Your task to perform on an android device: change notification settings in the gmail app Image 0: 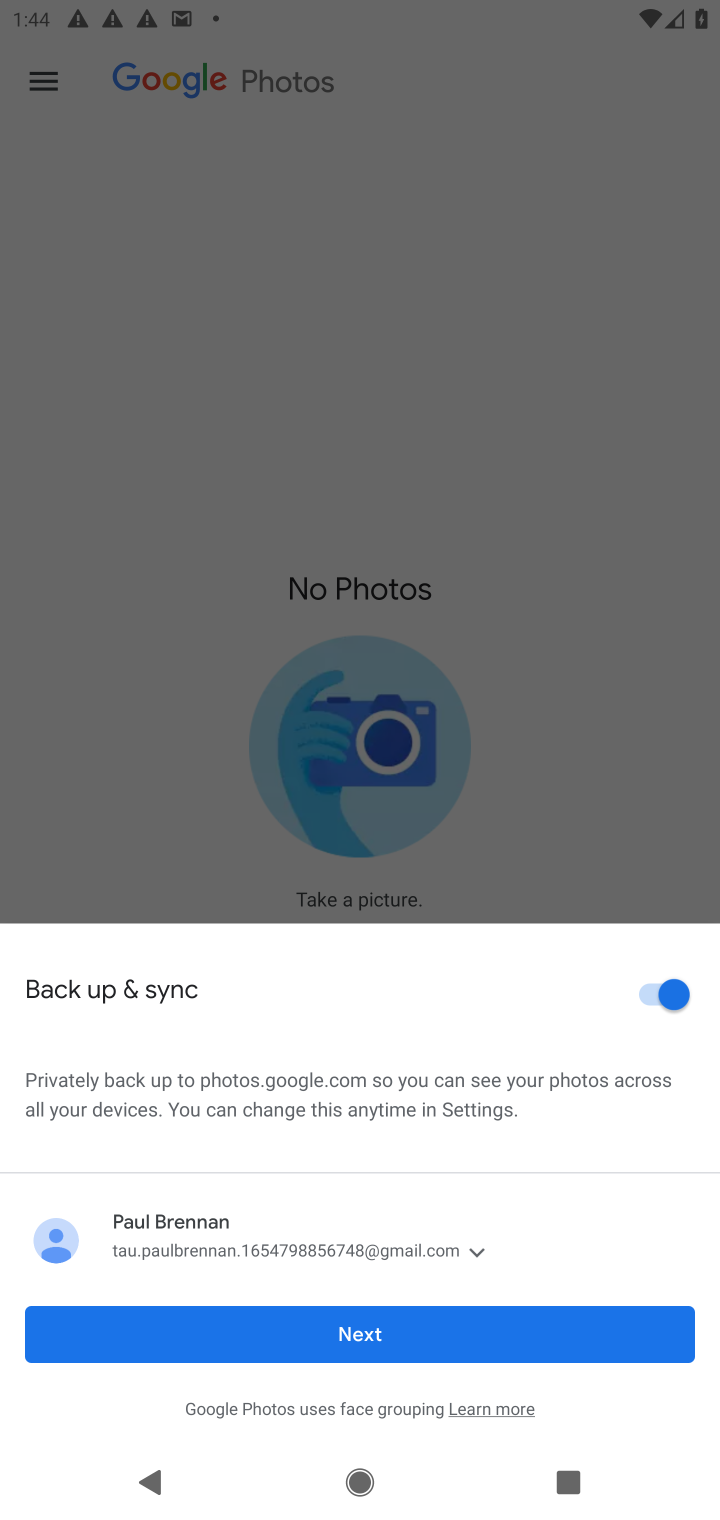
Step 0: press home button
Your task to perform on an android device: change notification settings in the gmail app Image 1: 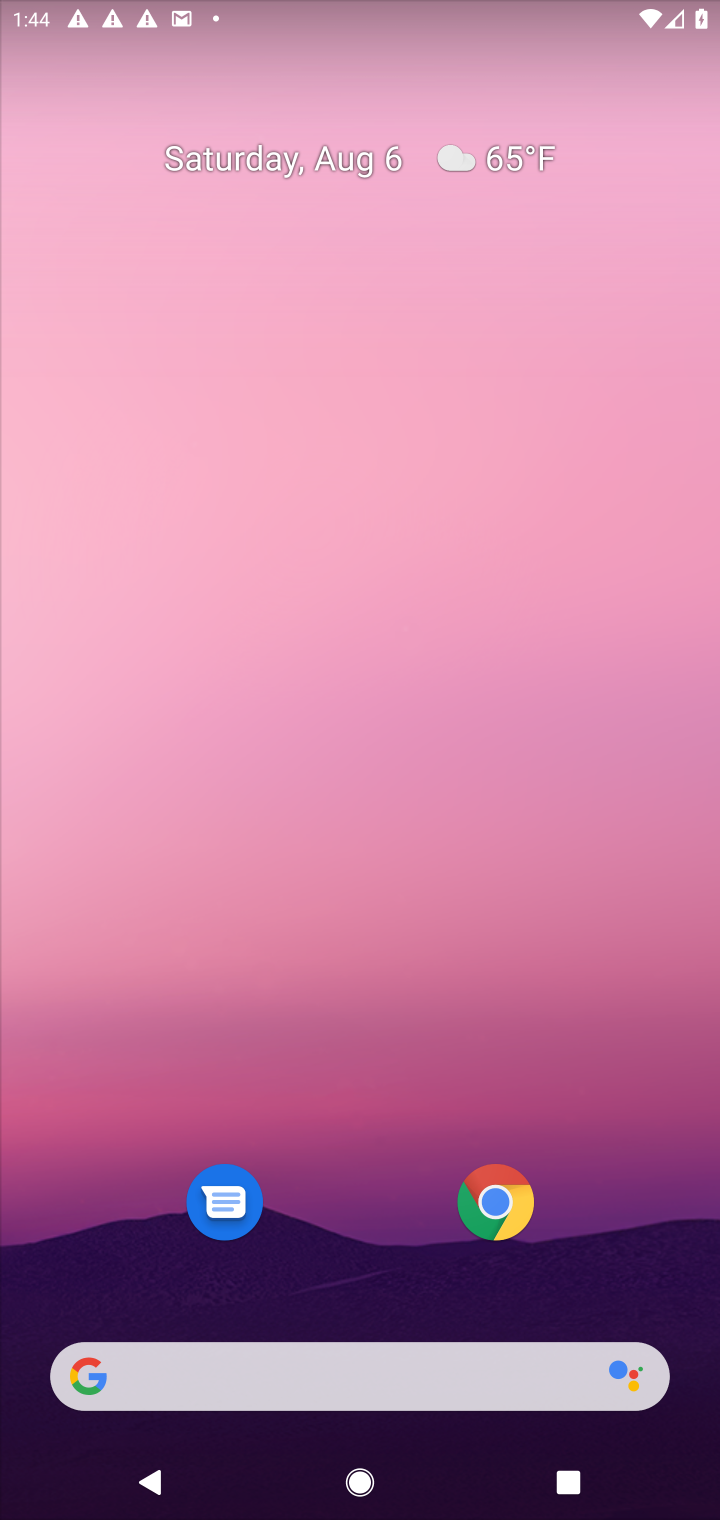
Step 1: drag from (244, 1310) to (329, 533)
Your task to perform on an android device: change notification settings in the gmail app Image 2: 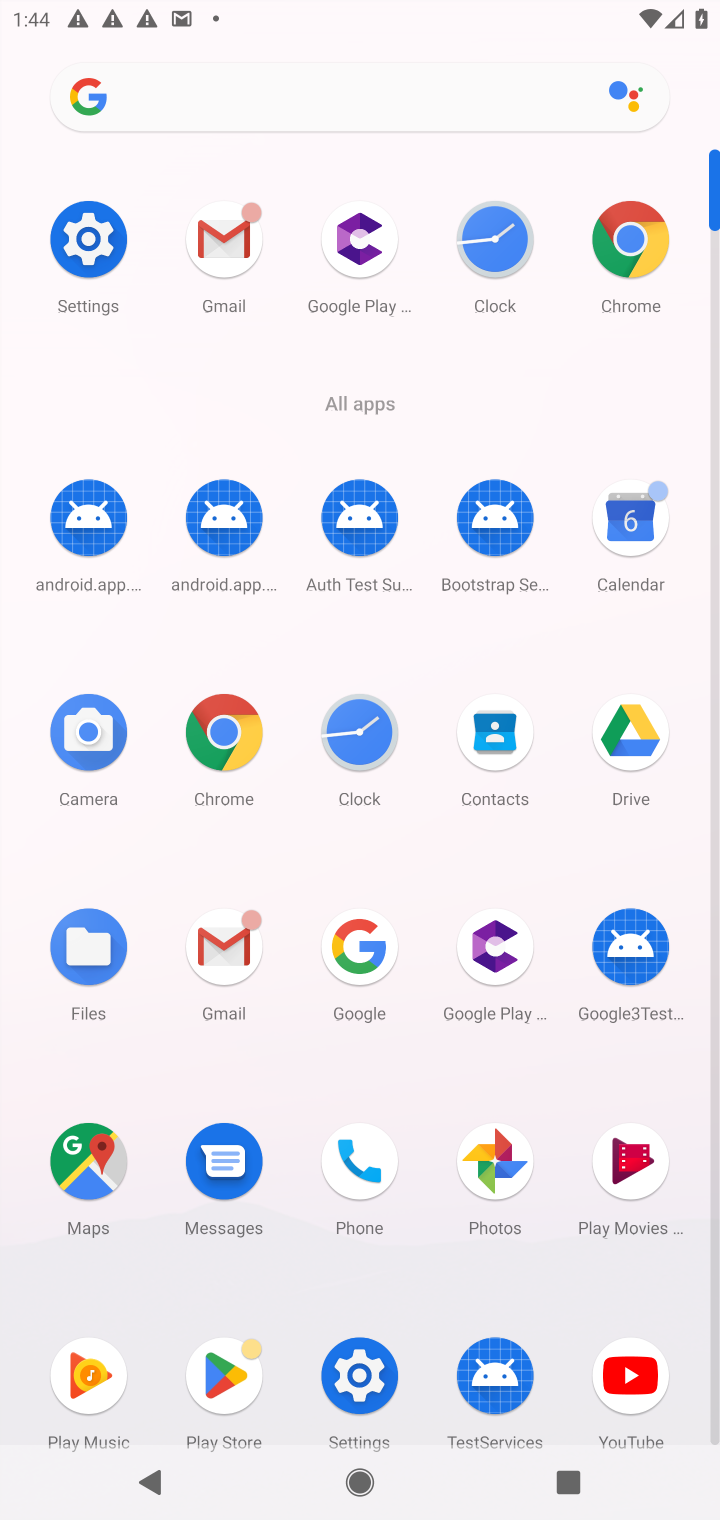
Step 2: click (215, 956)
Your task to perform on an android device: change notification settings in the gmail app Image 3: 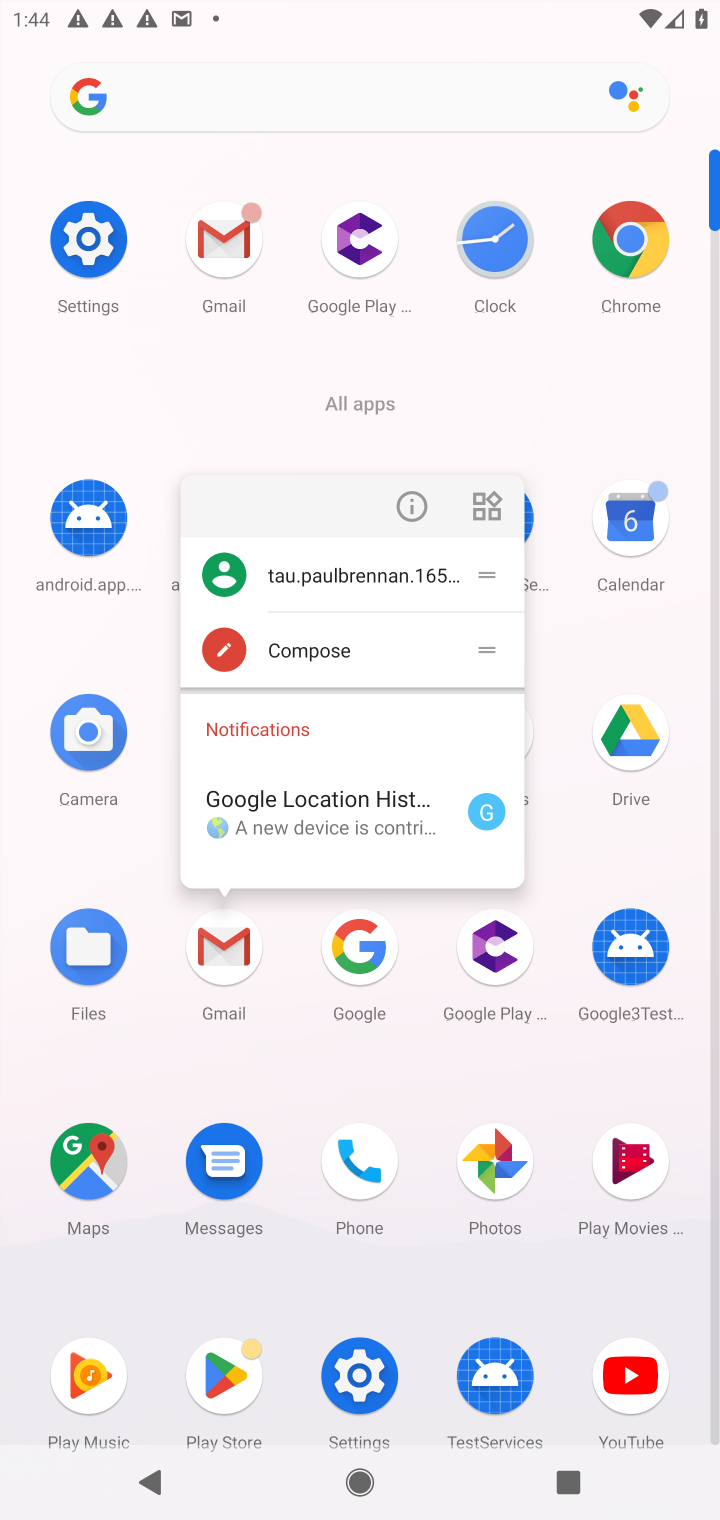
Step 3: click (215, 956)
Your task to perform on an android device: change notification settings in the gmail app Image 4: 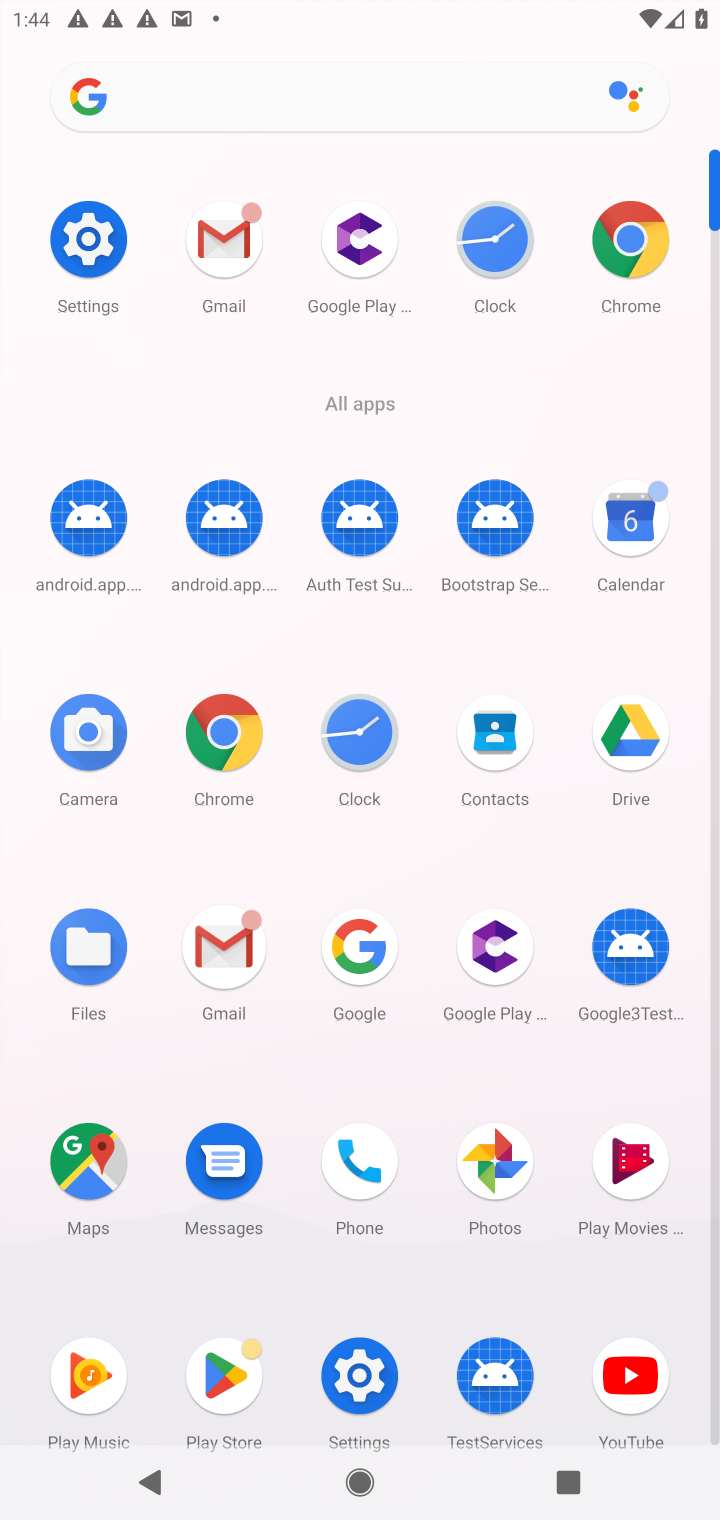
Step 4: click (215, 956)
Your task to perform on an android device: change notification settings in the gmail app Image 5: 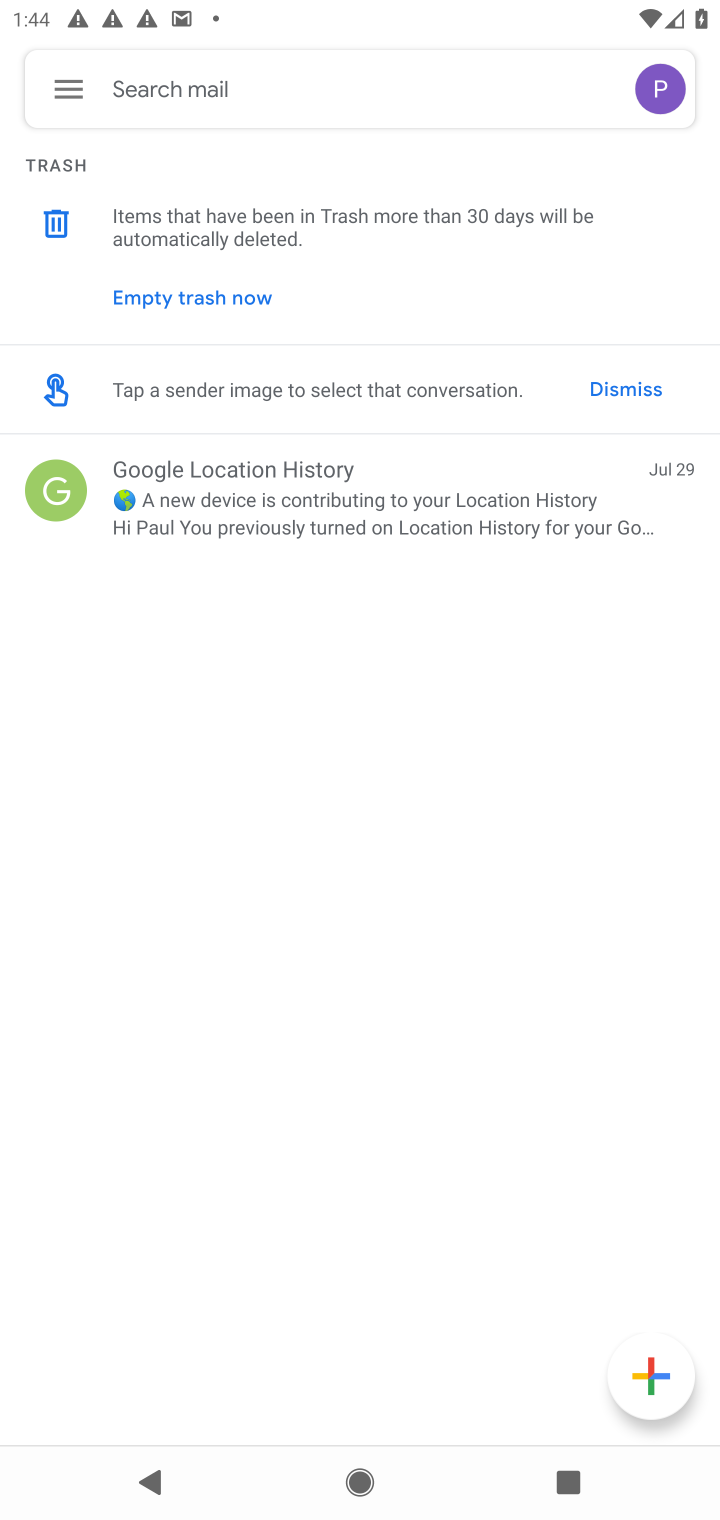
Step 5: click (77, 100)
Your task to perform on an android device: change notification settings in the gmail app Image 6: 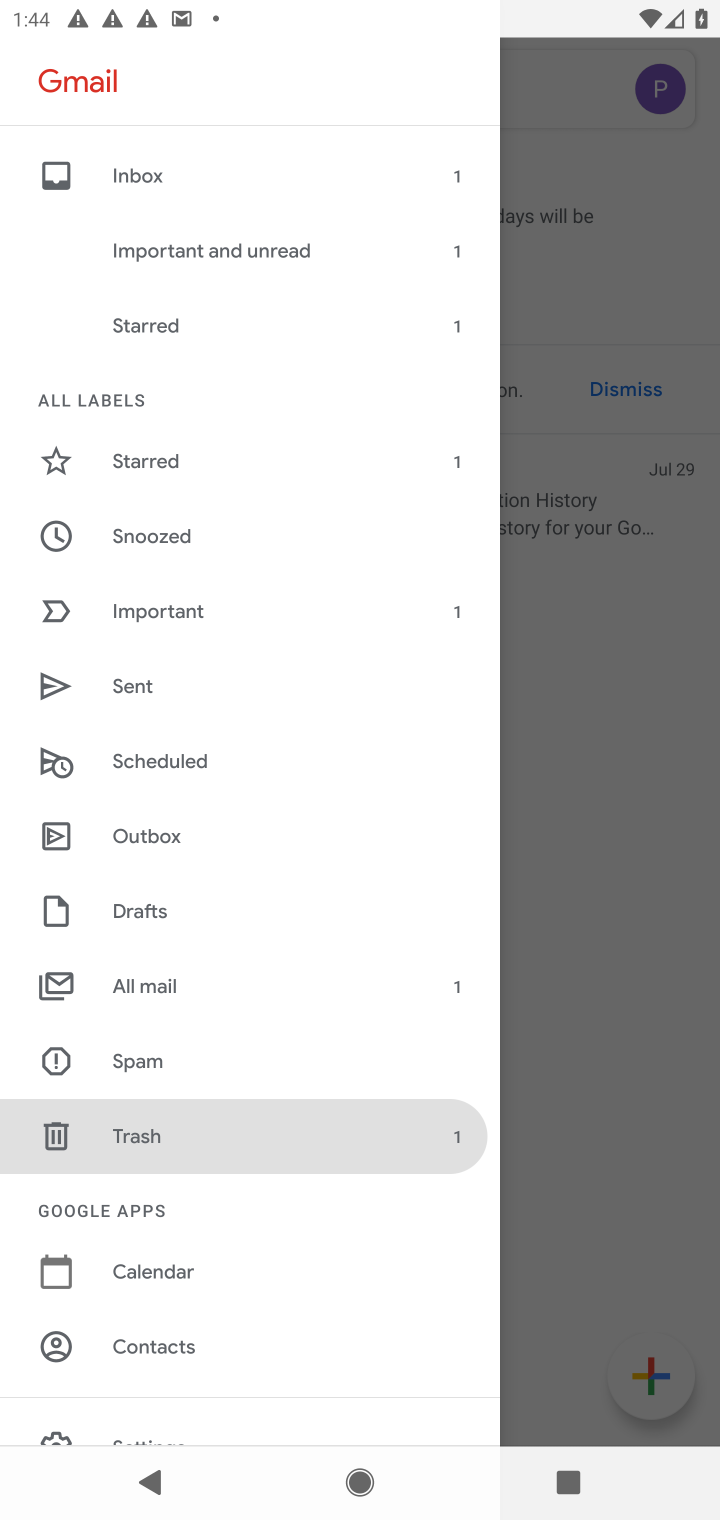
Step 6: drag from (188, 1284) to (251, 564)
Your task to perform on an android device: change notification settings in the gmail app Image 7: 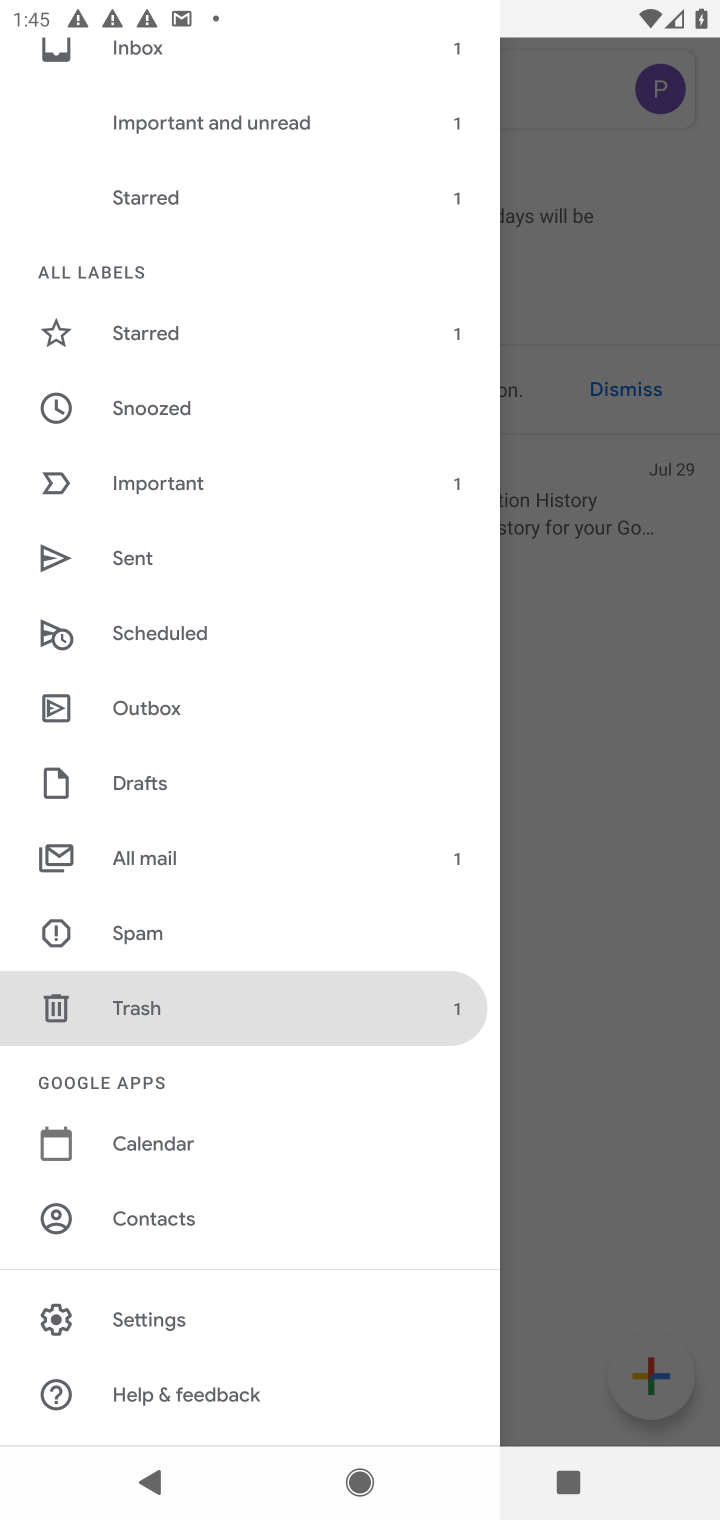
Step 7: click (146, 1311)
Your task to perform on an android device: change notification settings in the gmail app Image 8: 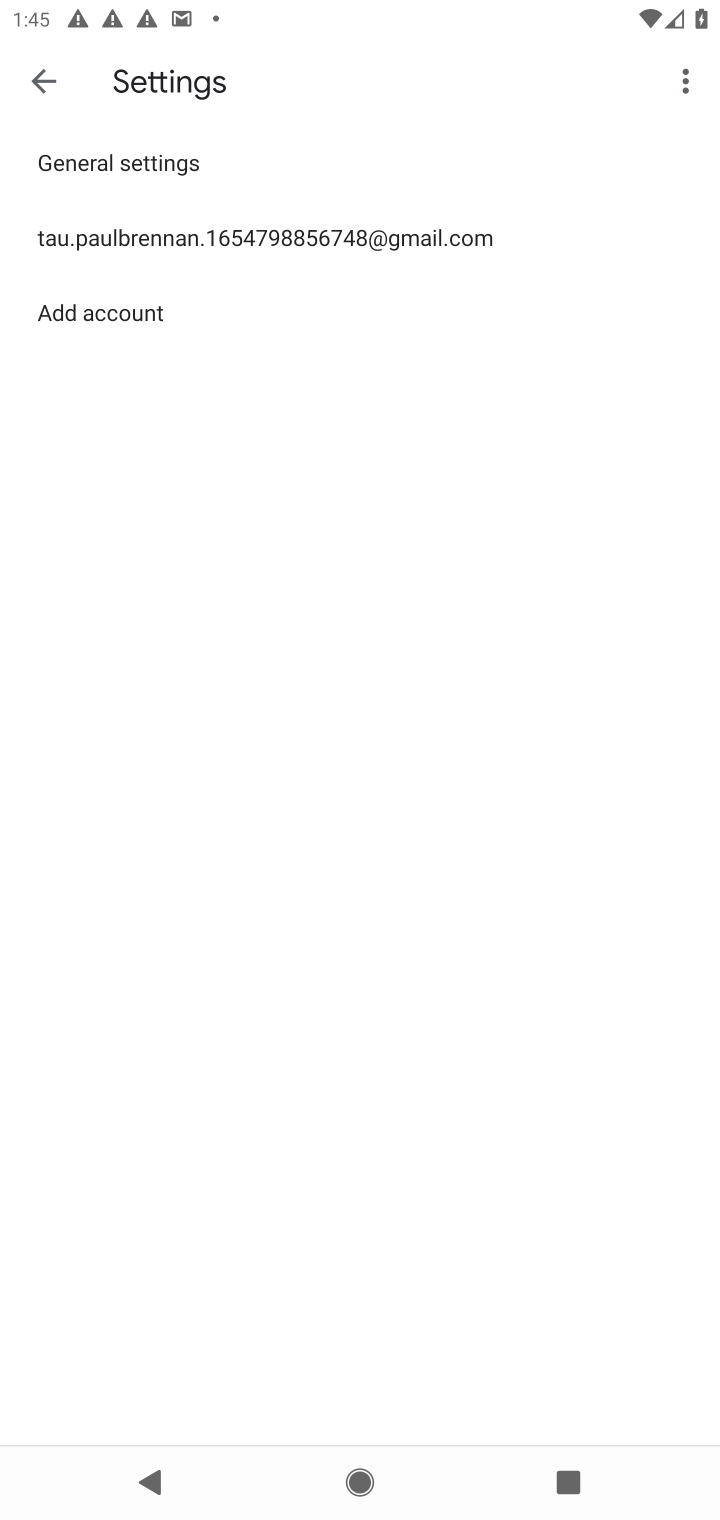
Step 8: click (107, 233)
Your task to perform on an android device: change notification settings in the gmail app Image 9: 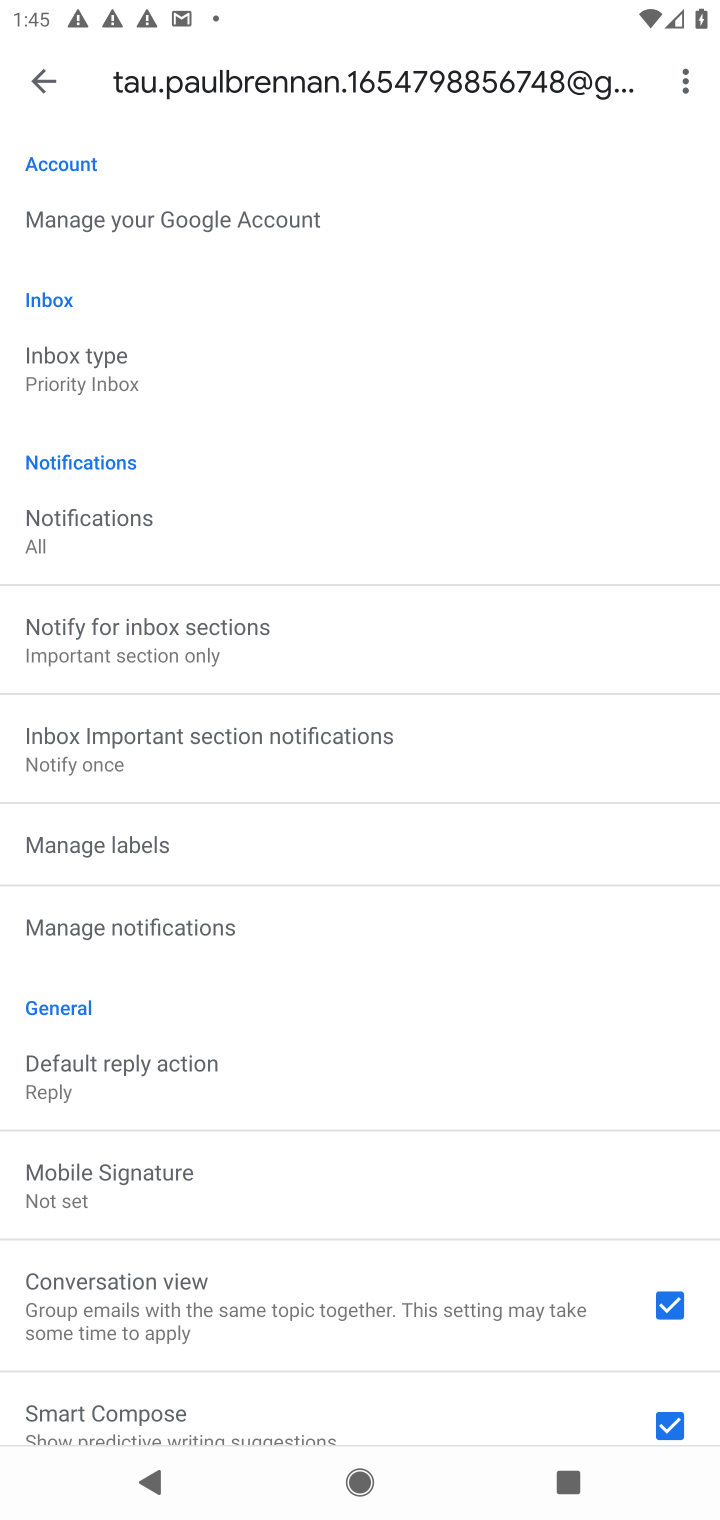
Step 9: click (83, 540)
Your task to perform on an android device: change notification settings in the gmail app Image 10: 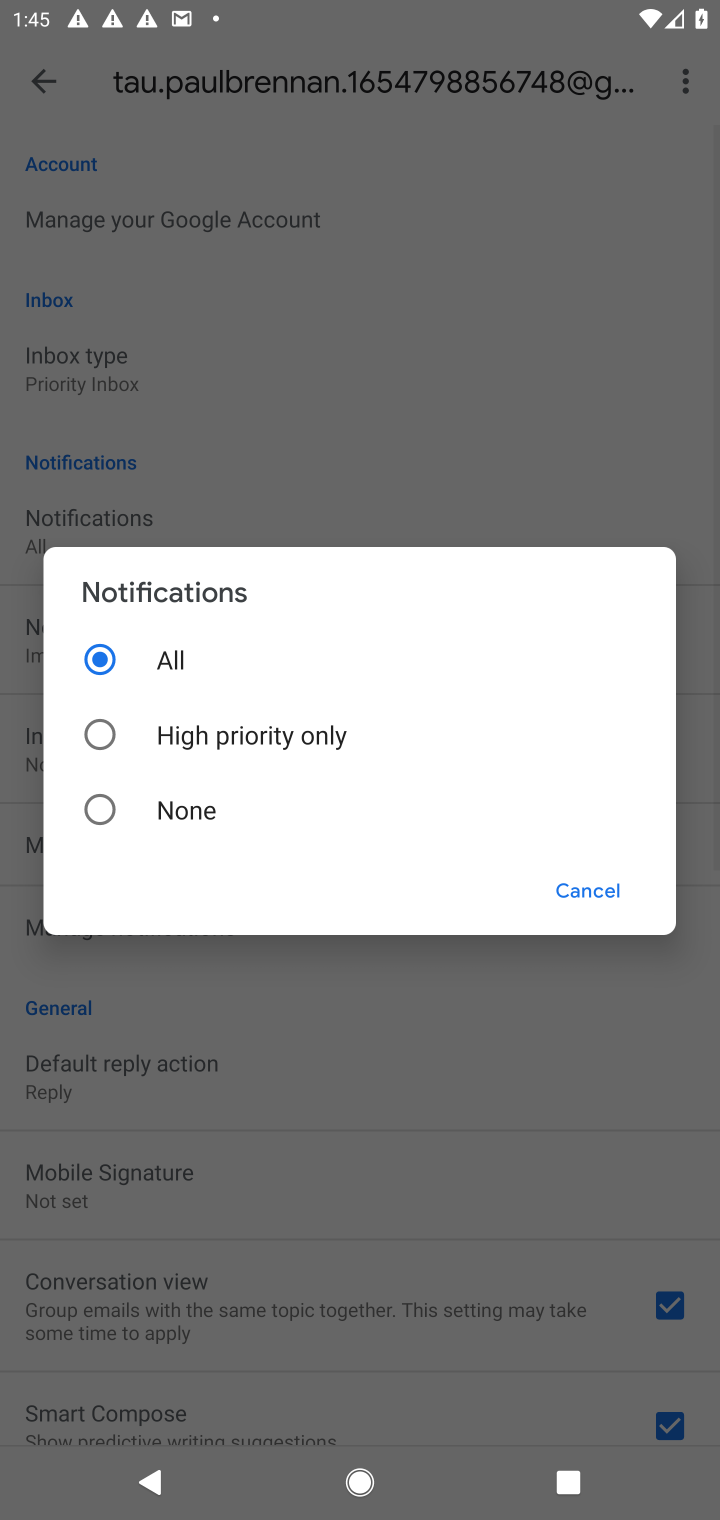
Step 10: click (142, 750)
Your task to perform on an android device: change notification settings in the gmail app Image 11: 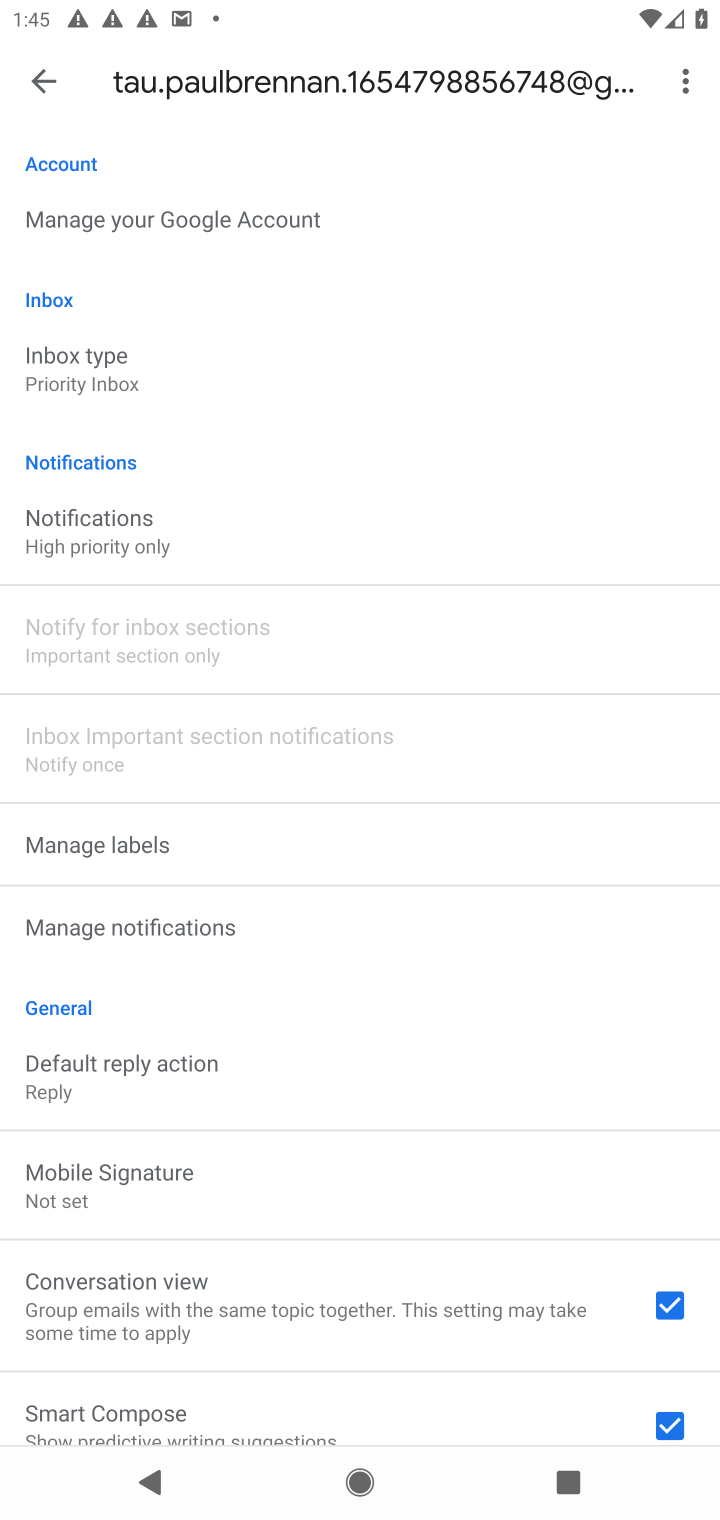
Step 11: task complete